Your task to perform on an android device: toggle javascript in the chrome app Image 0: 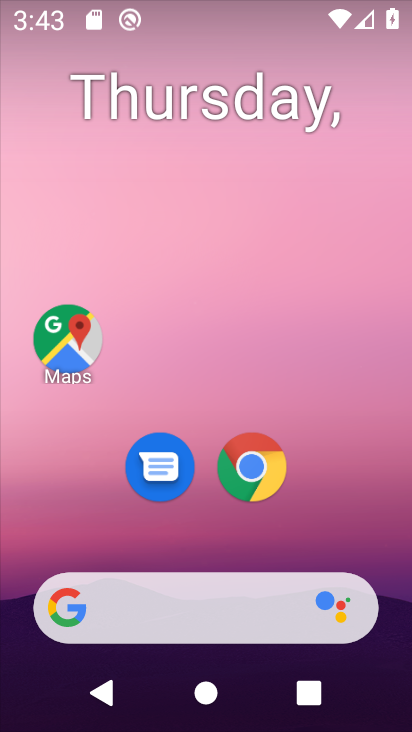
Step 0: click (251, 456)
Your task to perform on an android device: toggle javascript in the chrome app Image 1: 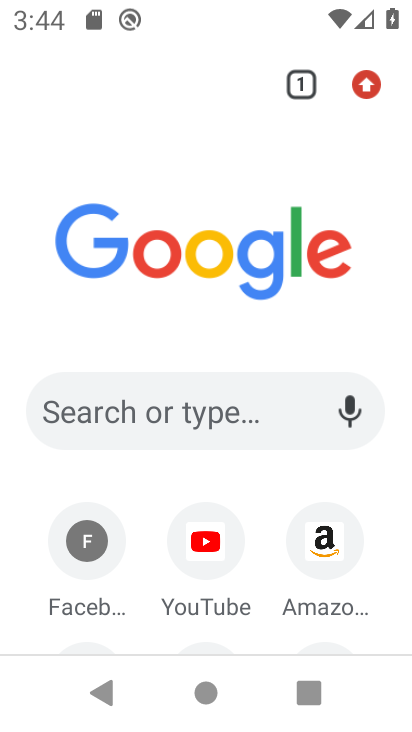
Step 1: click (369, 81)
Your task to perform on an android device: toggle javascript in the chrome app Image 2: 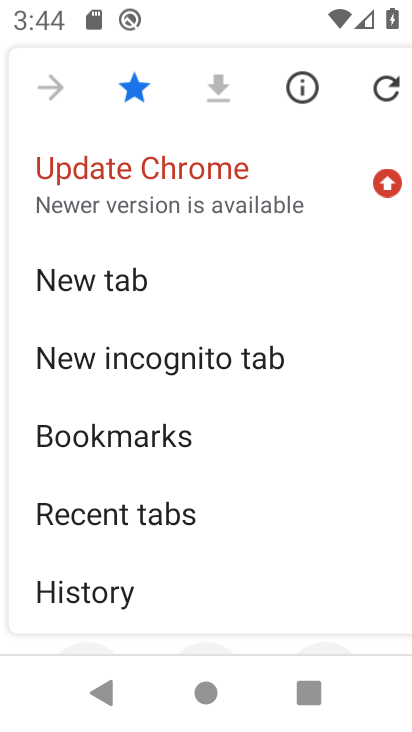
Step 2: drag from (184, 585) to (246, 189)
Your task to perform on an android device: toggle javascript in the chrome app Image 3: 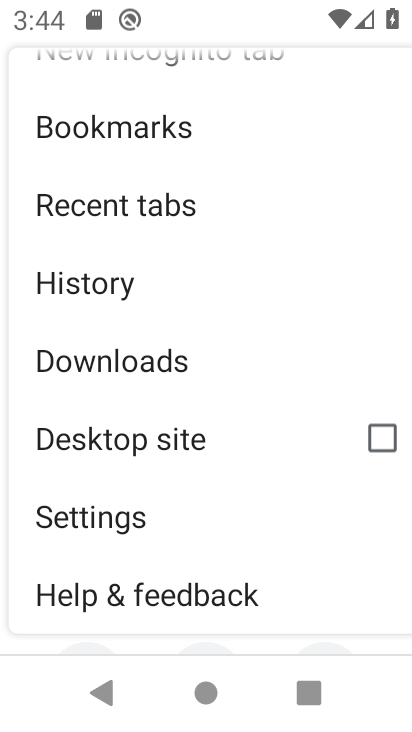
Step 3: click (128, 501)
Your task to perform on an android device: toggle javascript in the chrome app Image 4: 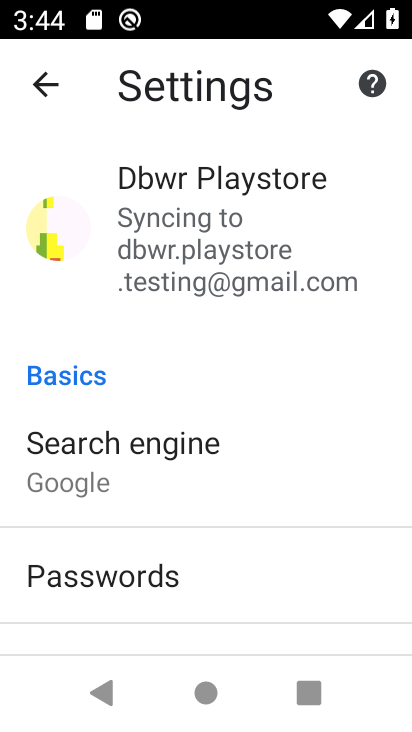
Step 4: drag from (162, 254) to (195, 153)
Your task to perform on an android device: toggle javascript in the chrome app Image 5: 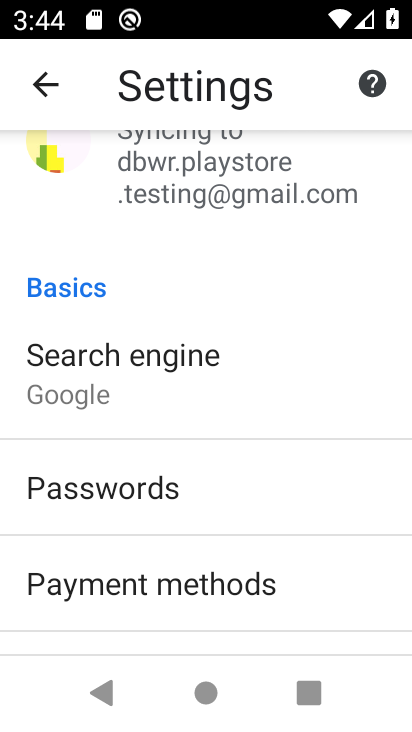
Step 5: drag from (108, 481) to (189, 144)
Your task to perform on an android device: toggle javascript in the chrome app Image 6: 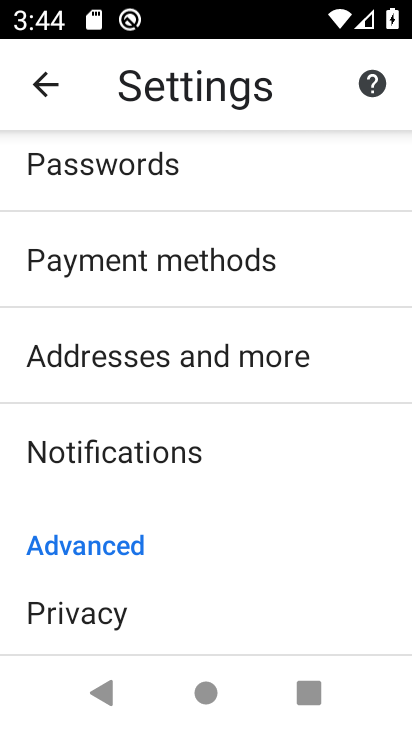
Step 6: drag from (128, 540) to (225, 206)
Your task to perform on an android device: toggle javascript in the chrome app Image 7: 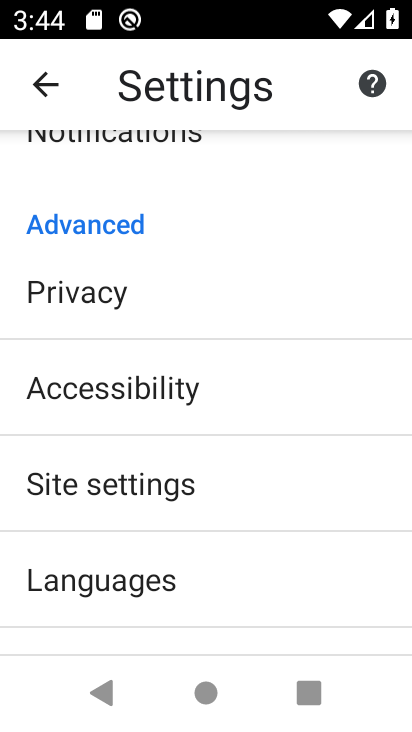
Step 7: click (135, 484)
Your task to perform on an android device: toggle javascript in the chrome app Image 8: 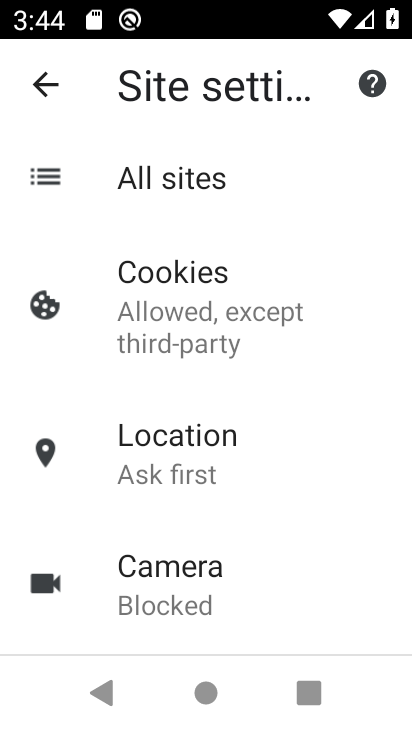
Step 8: drag from (147, 544) to (223, 228)
Your task to perform on an android device: toggle javascript in the chrome app Image 9: 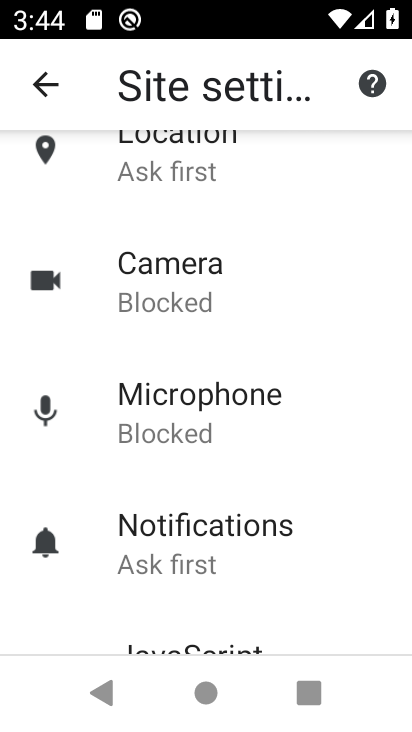
Step 9: drag from (181, 452) to (251, 125)
Your task to perform on an android device: toggle javascript in the chrome app Image 10: 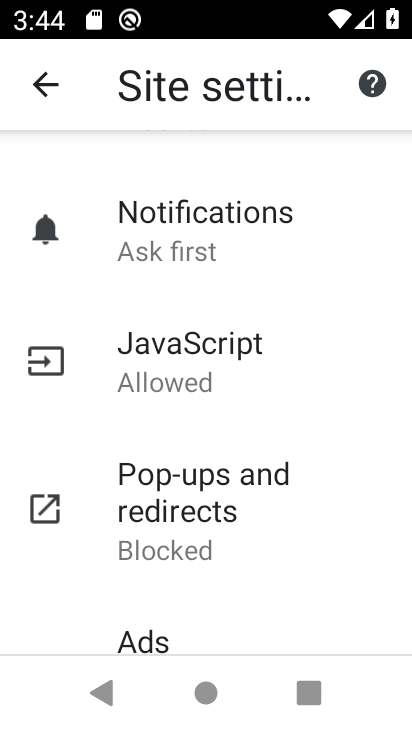
Step 10: click (164, 364)
Your task to perform on an android device: toggle javascript in the chrome app Image 11: 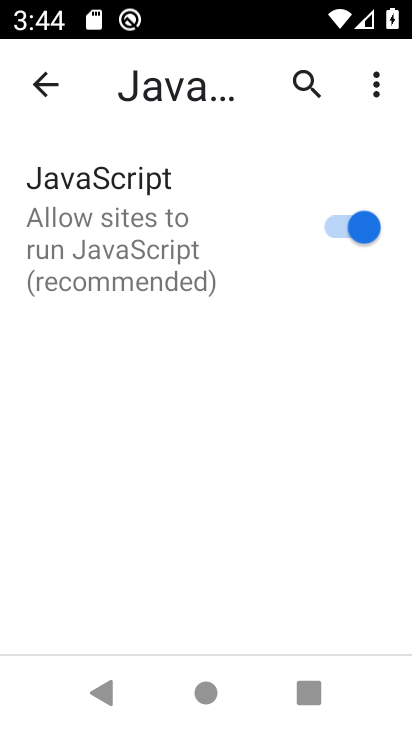
Step 11: click (325, 219)
Your task to perform on an android device: toggle javascript in the chrome app Image 12: 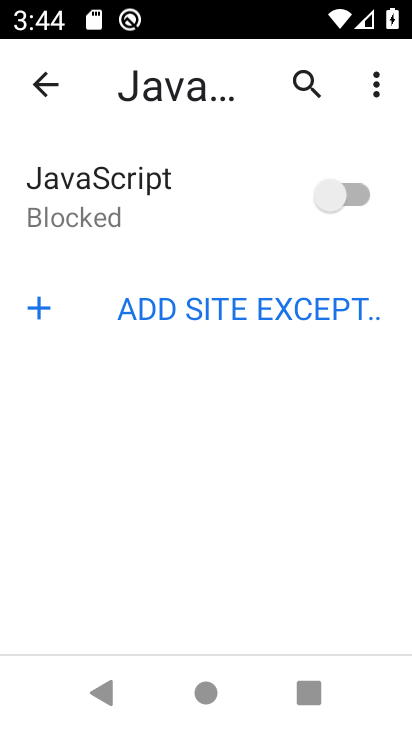
Step 12: task complete